Your task to perform on an android device: open the mobile data screen to see how much data has been used Image 0: 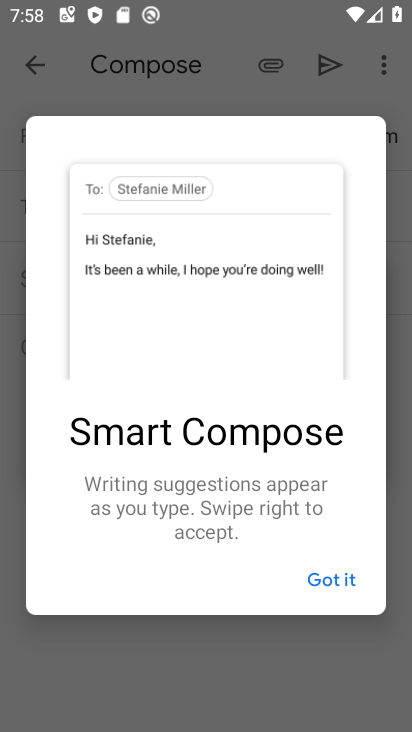
Step 0: press home button
Your task to perform on an android device: open the mobile data screen to see how much data has been used Image 1: 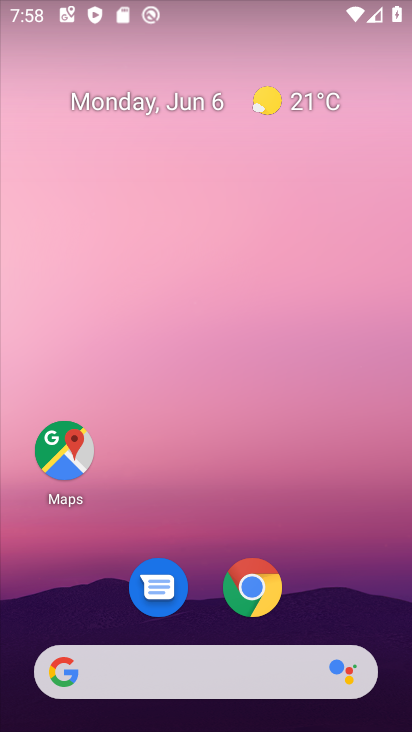
Step 1: drag from (232, 714) to (305, 77)
Your task to perform on an android device: open the mobile data screen to see how much data has been used Image 2: 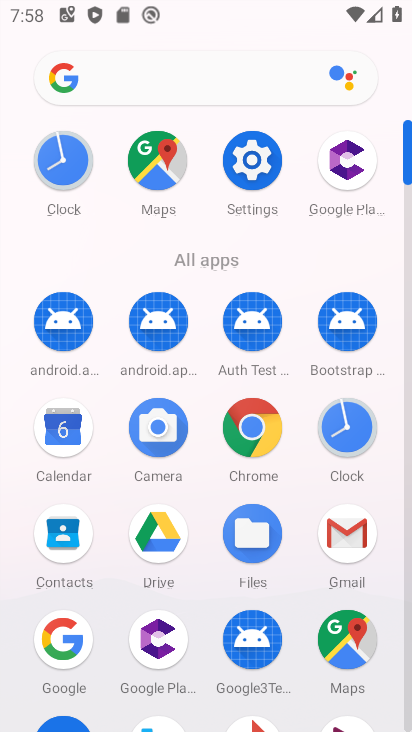
Step 2: click (236, 176)
Your task to perform on an android device: open the mobile data screen to see how much data has been used Image 3: 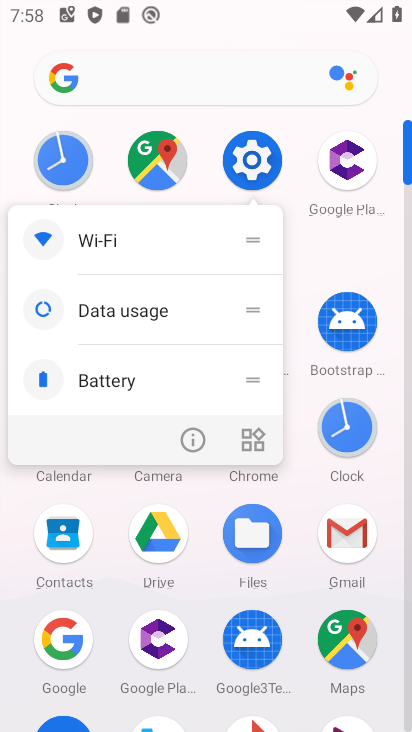
Step 3: click (236, 177)
Your task to perform on an android device: open the mobile data screen to see how much data has been used Image 4: 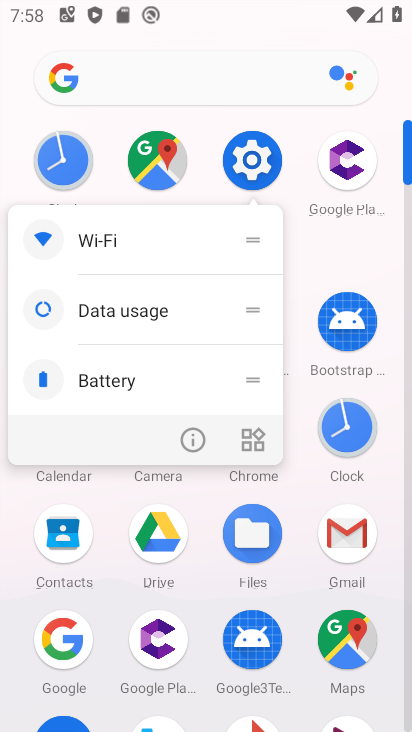
Step 4: click (236, 177)
Your task to perform on an android device: open the mobile data screen to see how much data has been used Image 5: 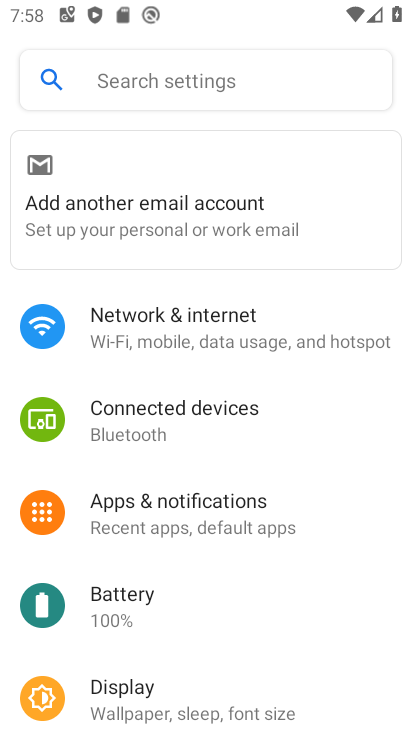
Step 5: click (200, 327)
Your task to perform on an android device: open the mobile data screen to see how much data has been used Image 6: 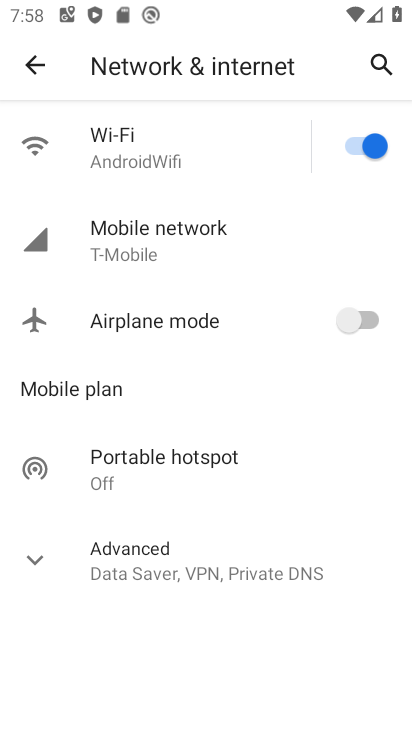
Step 6: click (191, 258)
Your task to perform on an android device: open the mobile data screen to see how much data has been used Image 7: 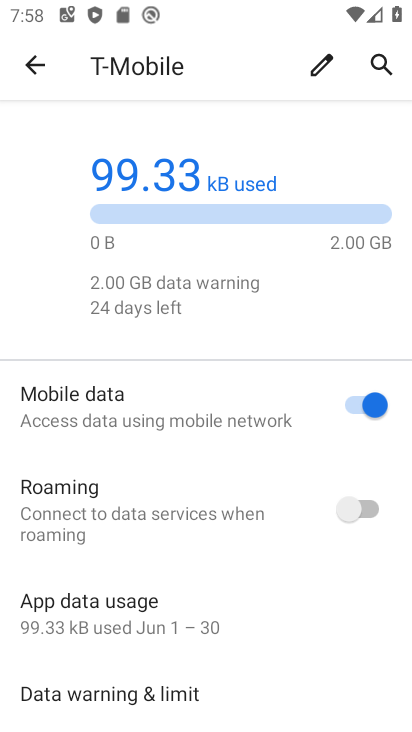
Step 7: task complete